Your task to perform on an android device: Open the web browser Image 0: 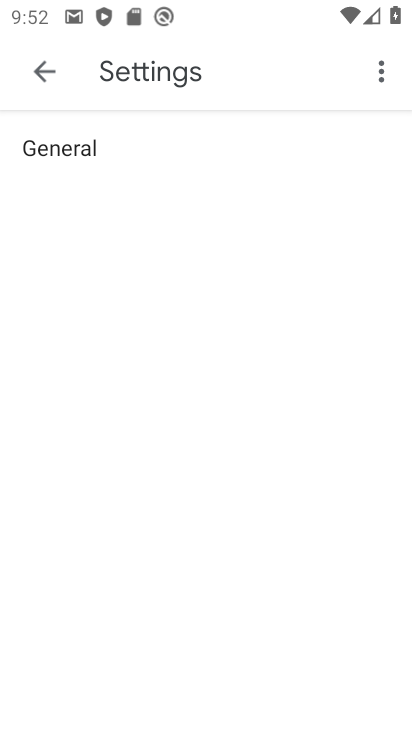
Step 0: press home button
Your task to perform on an android device: Open the web browser Image 1: 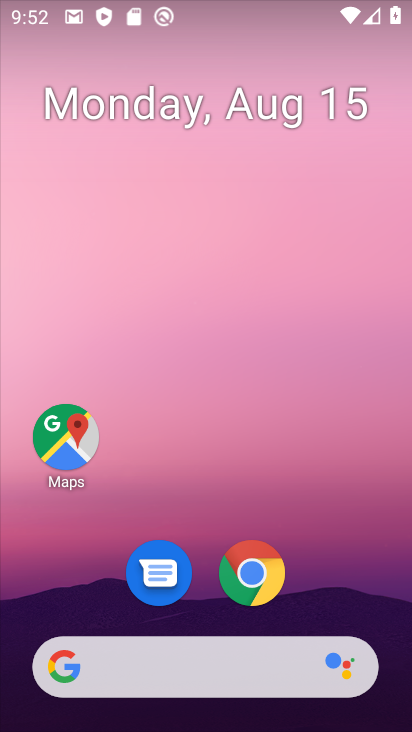
Step 1: click (253, 574)
Your task to perform on an android device: Open the web browser Image 2: 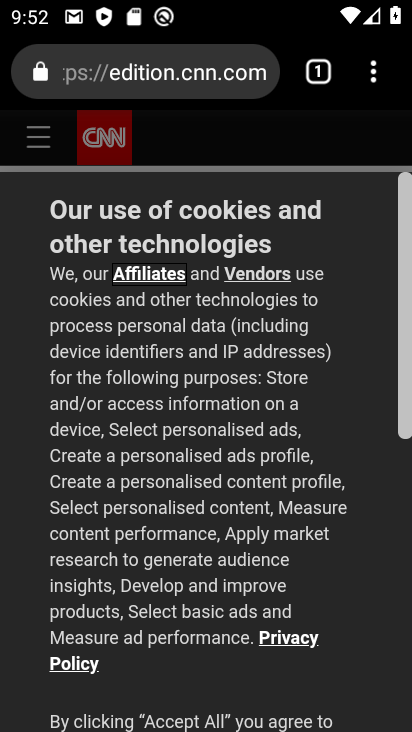
Step 2: click (368, 71)
Your task to perform on an android device: Open the web browser Image 3: 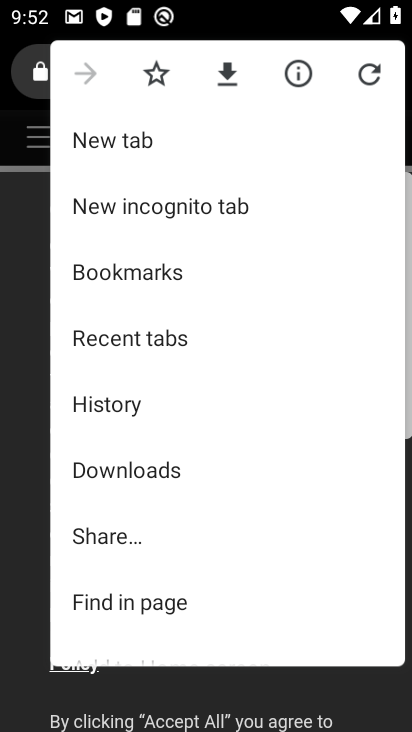
Step 3: click (81, 134)
Your task to perform on an android device: Open the web browser Image 4: 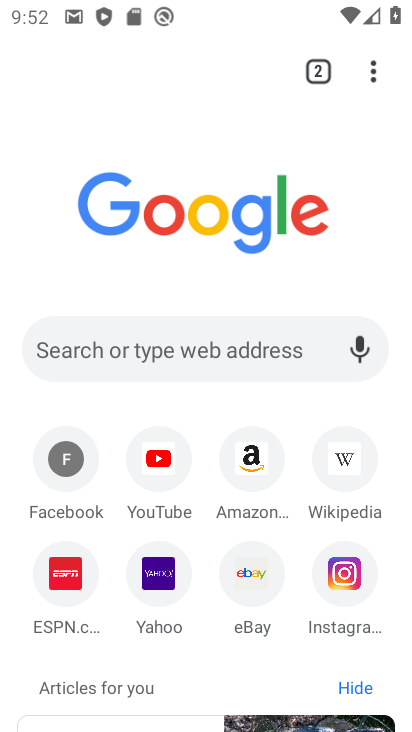
Step 4: task complete